Your task to perform on an android device: Is it going to rain tomorrow? Image 0: 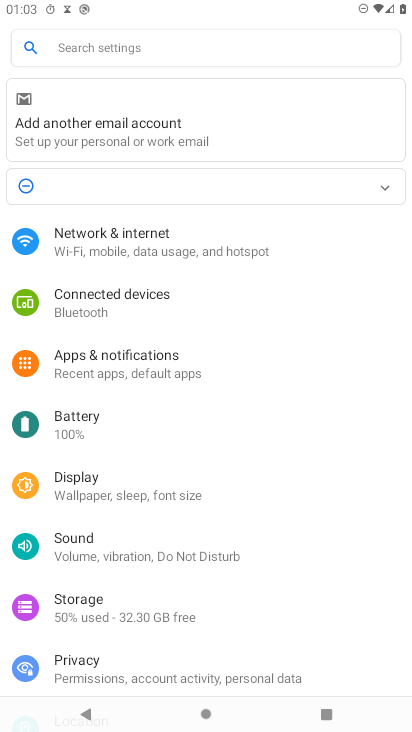
Step 0: press home button
Your task to perform on an android device: Is it going to rain tomorrow? Image 1: 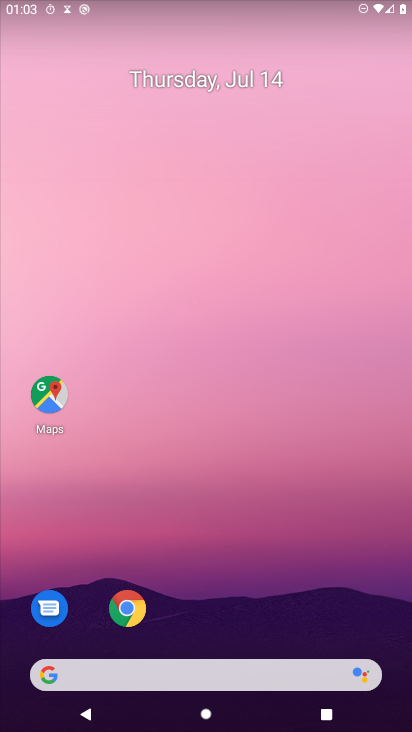
Step 1: drag from (315, 625) to (282, 48)
Your task to perform on an android device: Is it going to rain tomorrow? Image 2: 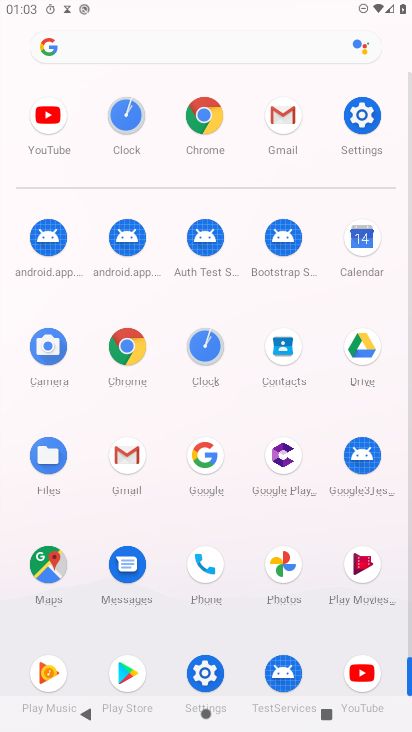
Step 2: click (201, 440)
Your task to perform on an android device: Is it going to rain tomorrow? Image 3: 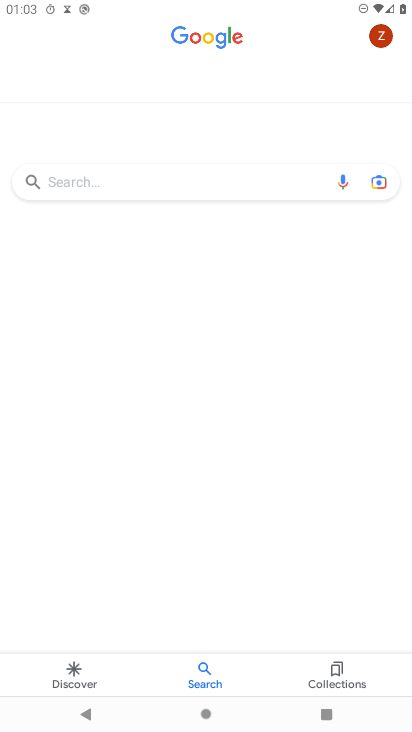
Step 3: click (67, 179)
Your task to perform on an android device: Is it going to rain tomorrow? Image 4: 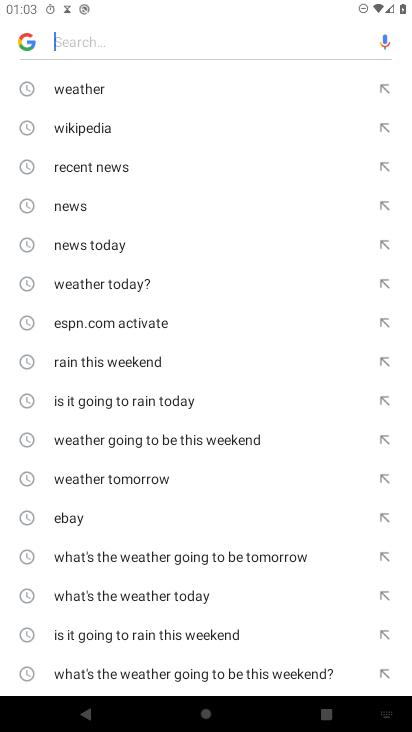
Step 4: type "Is it going to rain tomorrow?"
Your task to perform on an android device: Is it going to rain tomorrow? Image 5: 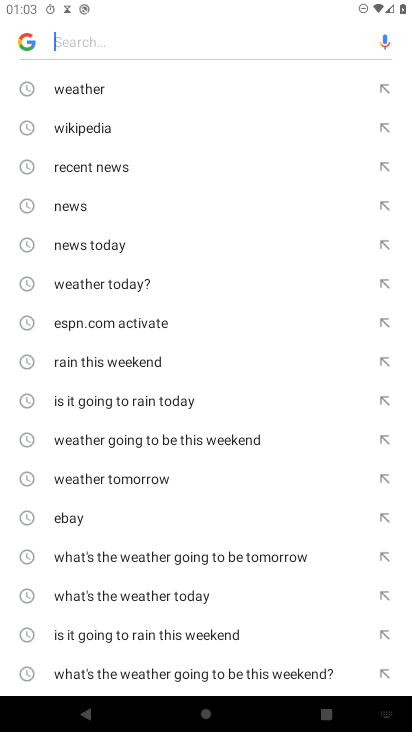
Step 5: click (62, 42)
Your task to perform on an android device: Is it going to rain tomorrow? Image 6: 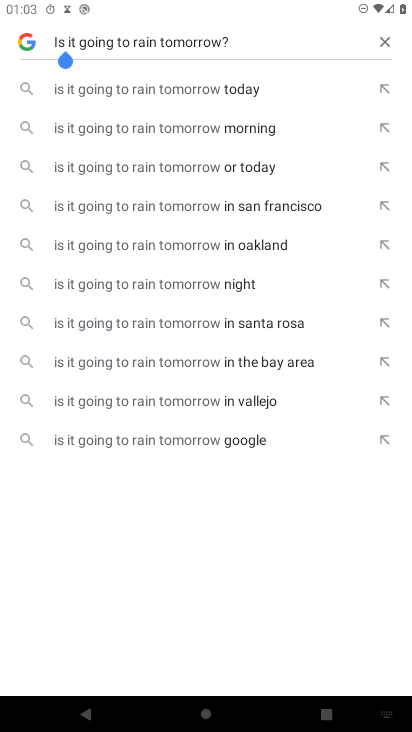
Step 6: press enter
Your task to perform on an android device: Is it going to rain tomorrow? Image 7: 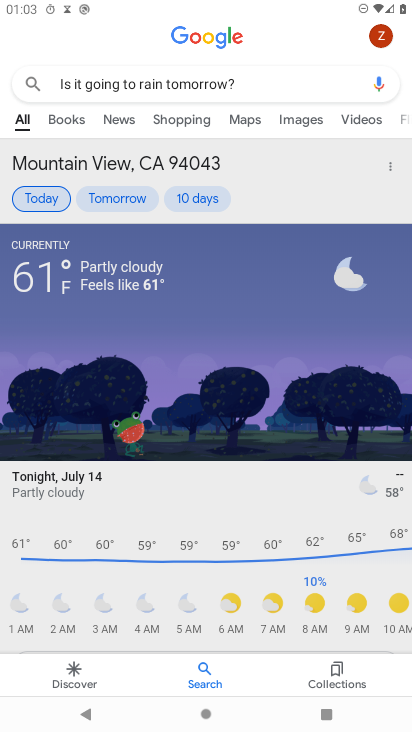
Step 7: task complete